Your task to perform on an android device: turn smart compose on in the gmail app Image 0: 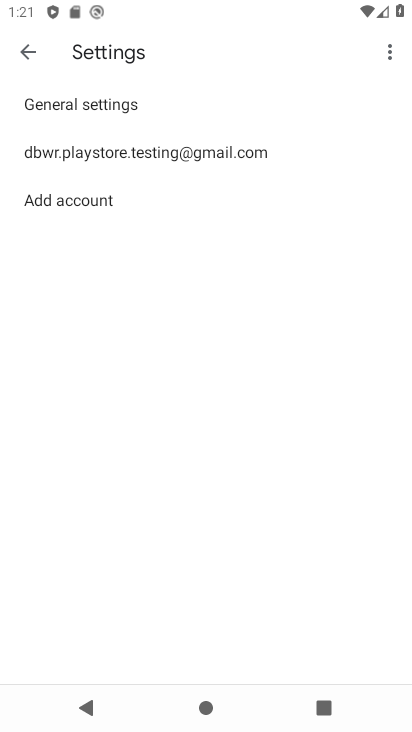
Step 0: press home button
Your task to perform on an android device: turn smart compose on in the gmail app Image 1: 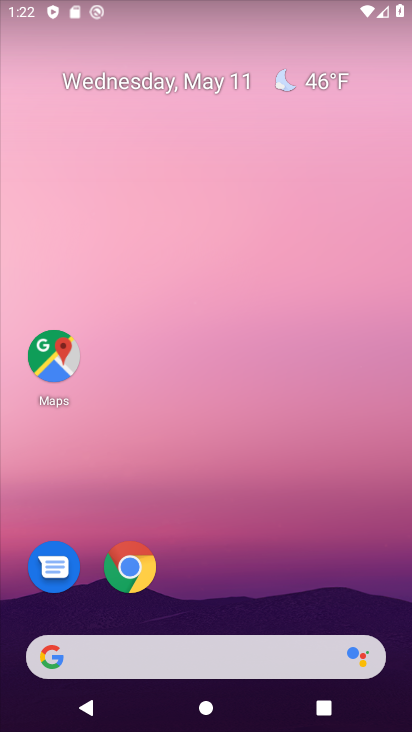
Step 1: drag from (240, 625) to (239, 4)
Your task to perform on an android device: turn smart compose on in the gmail app Image 2: 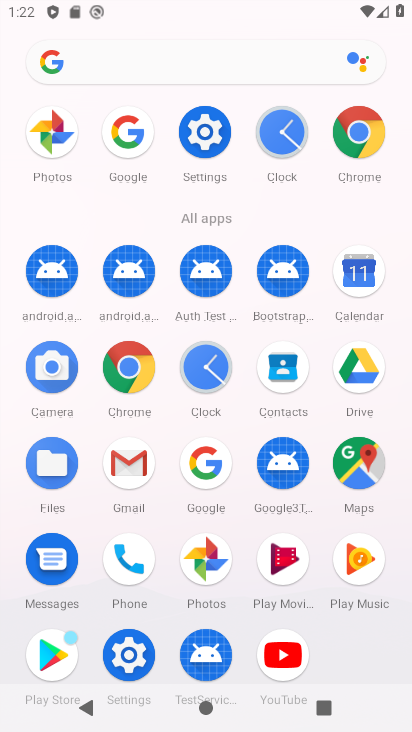
Step 2: click (134, 462)
Your task to perform on an android device: turn smart compose on in the gmail app Image 3: 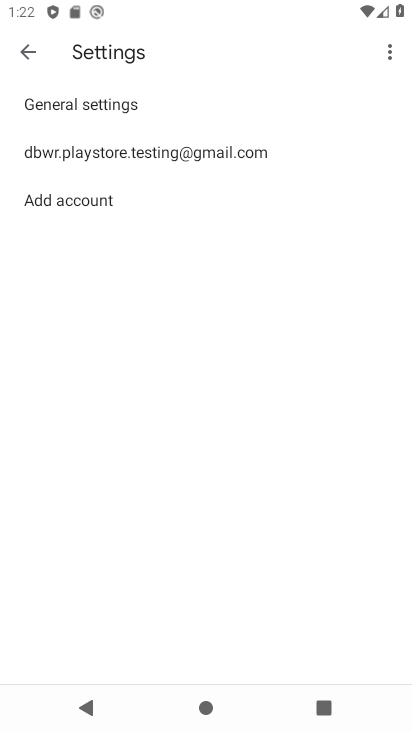
Step 3: click (85, 145)
Your task to perform on an android device: turn smart compose on in the gmail app Image 4: 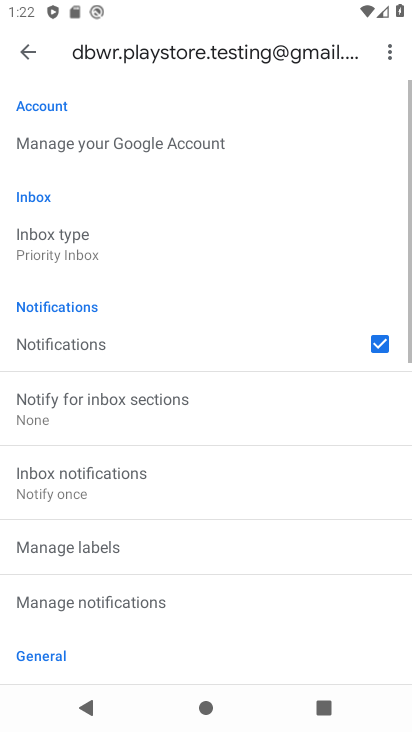
Step 4: task complete